Your task to perform on an android device: Go to Yahoo.com Image 0: 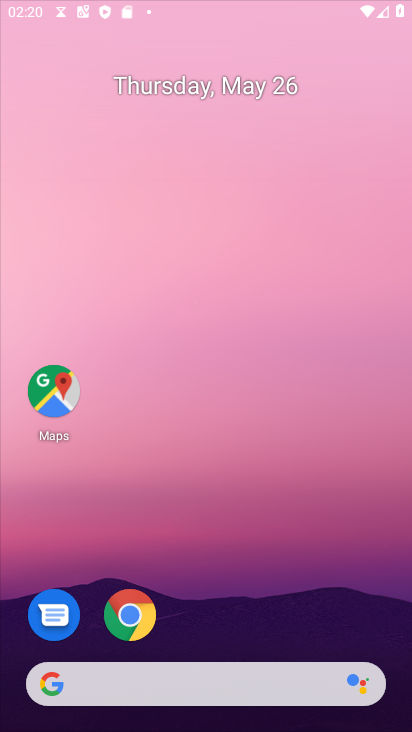
Step 0: press home button
Your task to perform on an android device: Go to Yahoo.com Image 1: 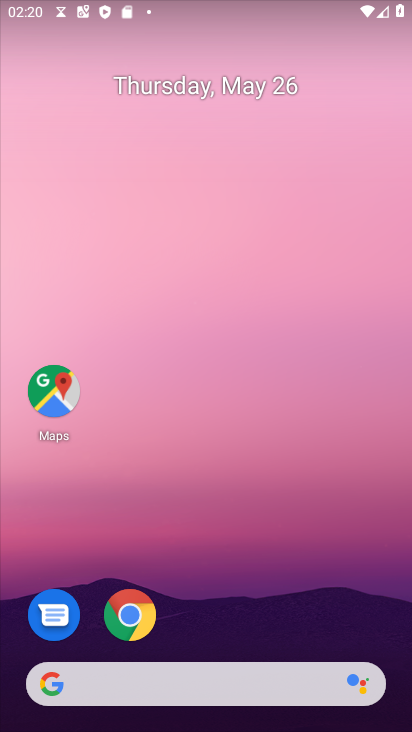
Step 1: click (126, 610)
Your task to perform on an android device: Go to Yahoo.com Image 2: 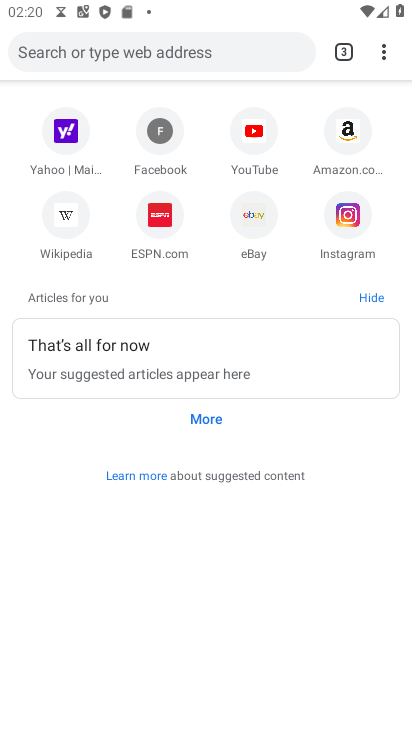
Step 2: click (62, 127)
Your task to perform on an android device: Go to Yahoo.com Image 3: 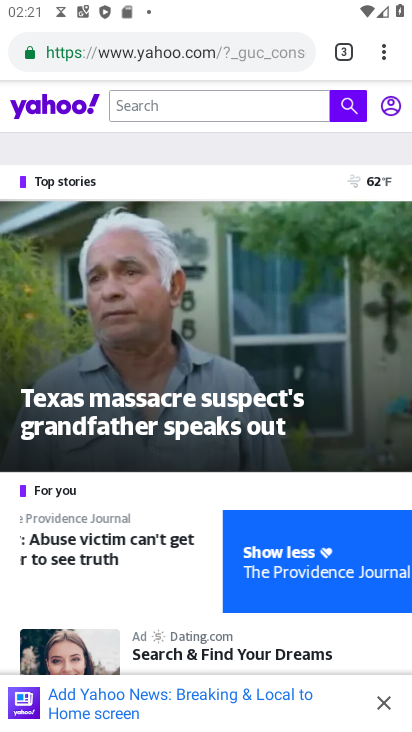
Step 3: click (341, 47)
Your task to perform on an android device: Go to Yahoo.com Image 4: 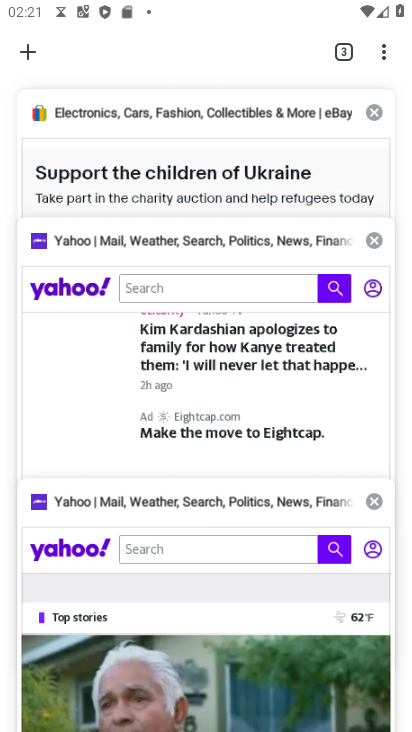
Step 4: click (135, 586)
Your task to perform on an android device: Go to Yahoo.com Image 5: 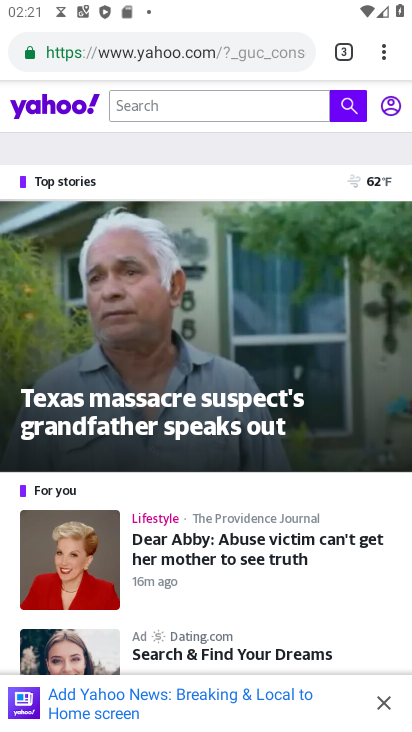
Step 5: task complete